Your task to perform on an android device: Open Google Image 0: 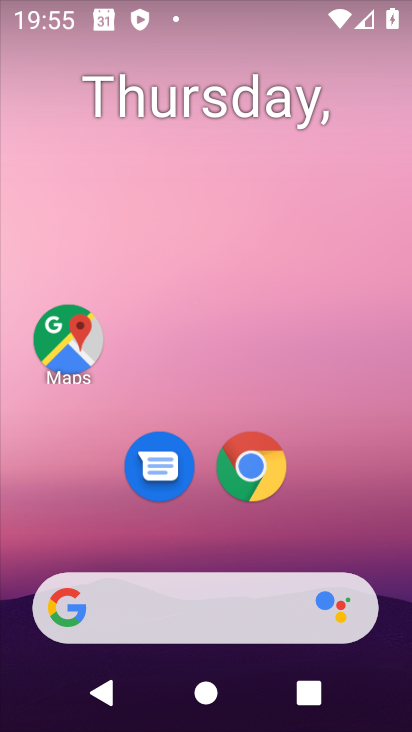
Step 0: drag from (330, 521) to (309, 86)
Your task to perform on an android device: Open Google Image 1: 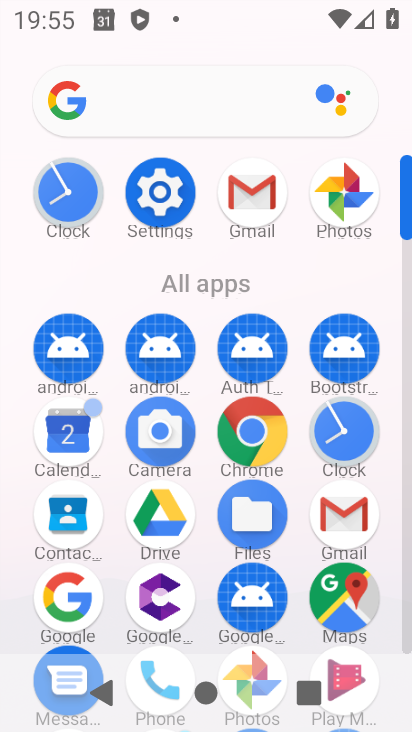
Step 1: click (71, 601)
Your task to perform on an android device: Open Google Image 2: 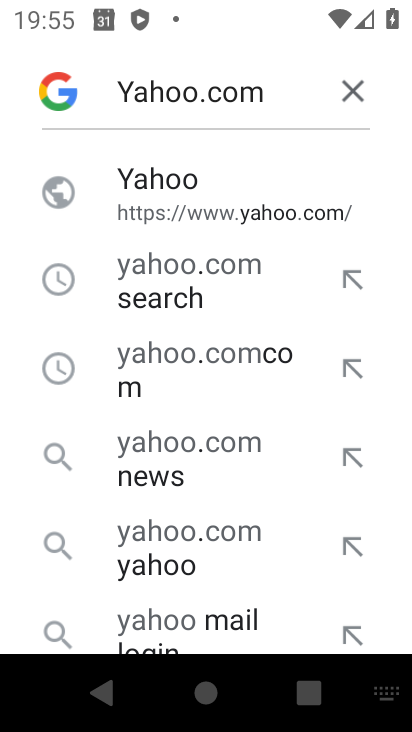
Step 2: click (357, 95)
Your task to perform on an android device: Open Google Image 3: 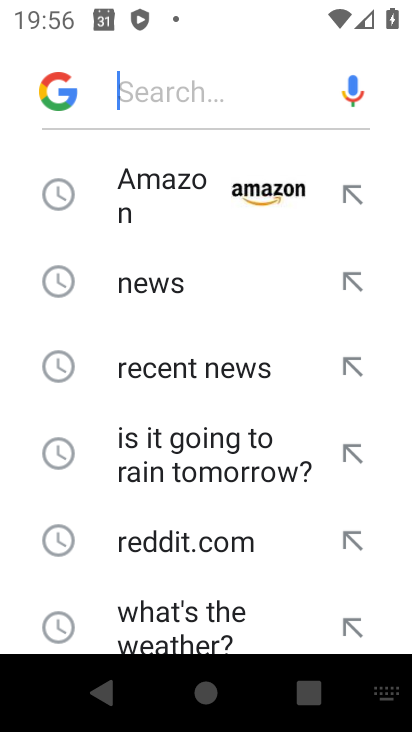
Step 3: click (50, 83)
Your task to perform on an android device: Open Google Image 4: 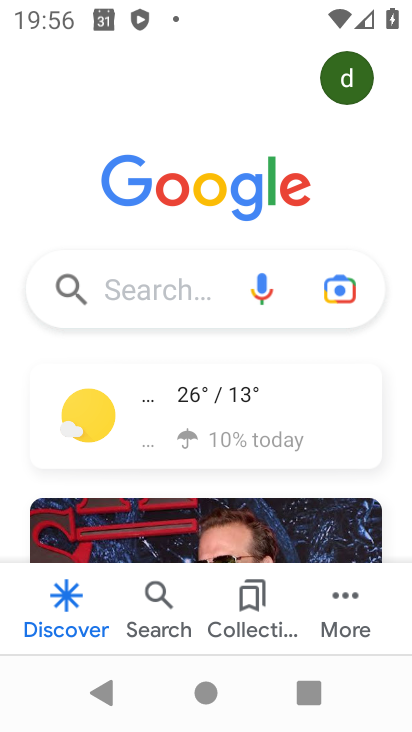
Step 4: task complete